Your task to perform on an android device: Open the gallery Image 0: 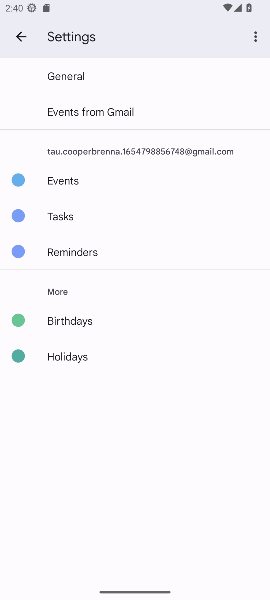
Step 0: press home button
Your task to perform on an android device: Open the gallery Image 1: 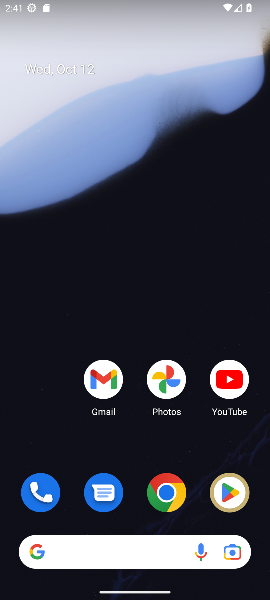
Step 1: task complete